Your task to perform on an android device: Search for sushi restaurants on Maps Image 0: 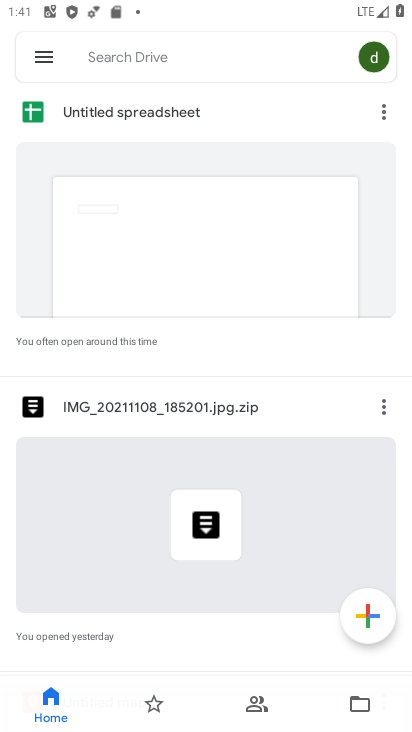
Step 0: press home button
Your task to perform on an android device: Search for sushi restaurants on Maps Image 1: 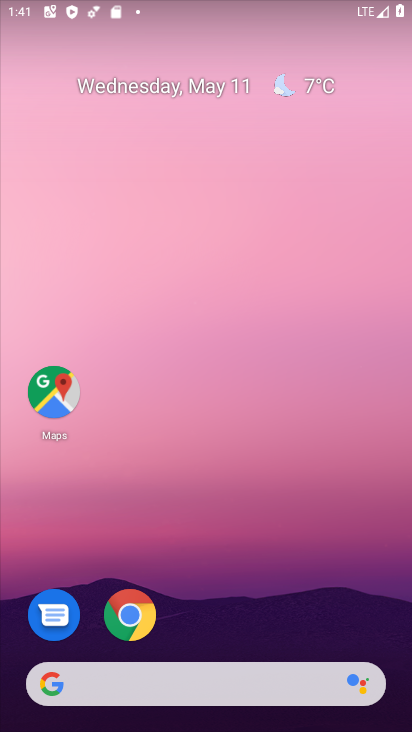
Step 1: click (57, 389)
Your task to perform on an android device: Search for sushi restaurants on Maps Image 2: 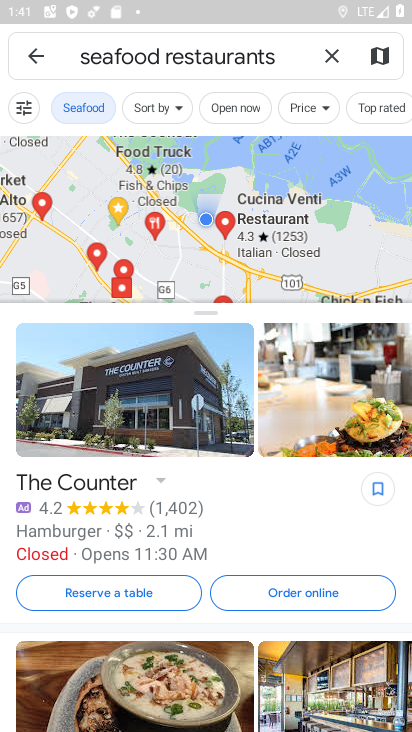
Step 2: click (329, 55)
Your task to perform on an android device: Search for sushi restaurants on Maps Image 3: 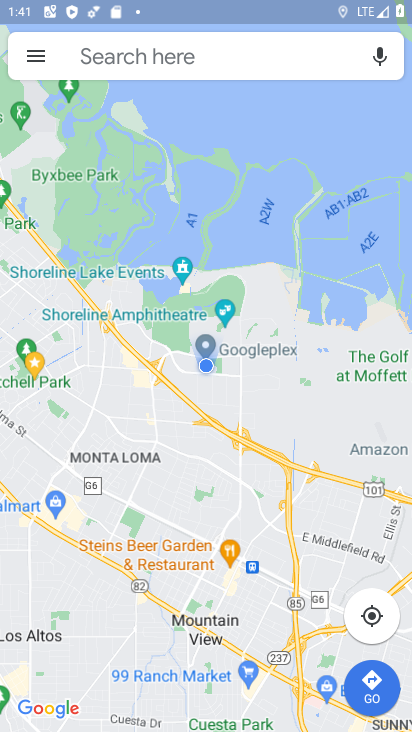
Step 3: type "sushi restaurants"
Your task to perform on an android device: Search for sushi restaurants on Maps Image 4: 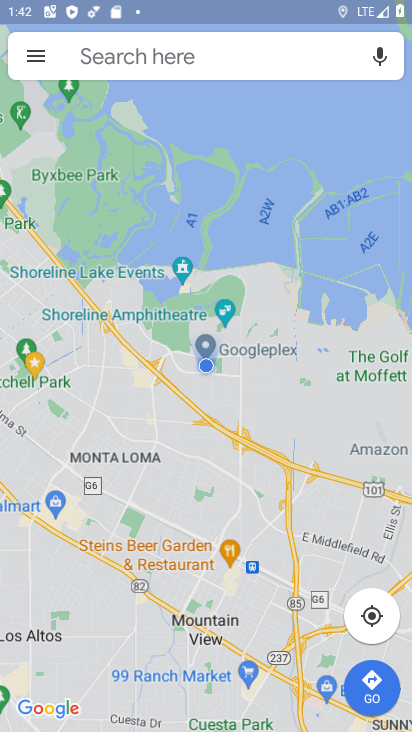
Step 4: click (256, 48)
Your task to perform on an android device: Search for sushi restaurants on Maps Image 5: 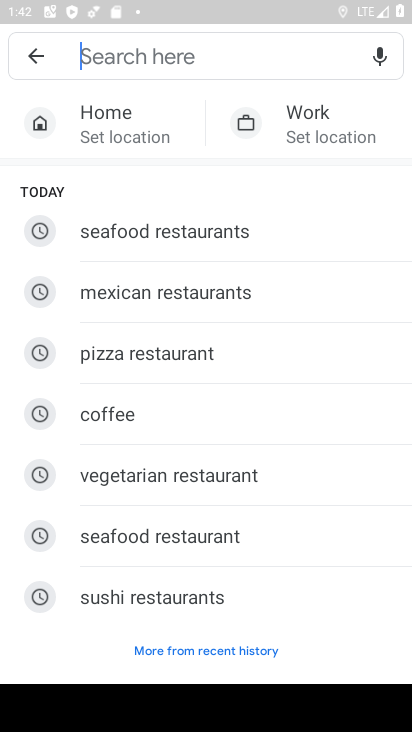
Step 5: type "sushi restaurants"
Your task to perform on an android device: Search for sushi restaurants on Maps Image 6: 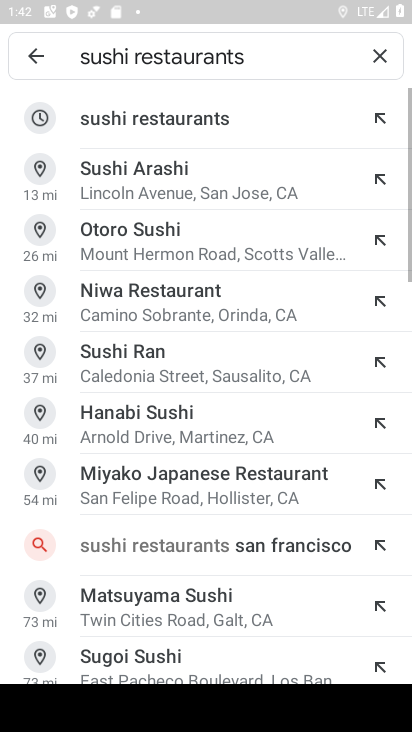
Step 6: click (241, 116)
Your task to perform on an android device: Search for sushi restaurants on Maps Image 7: 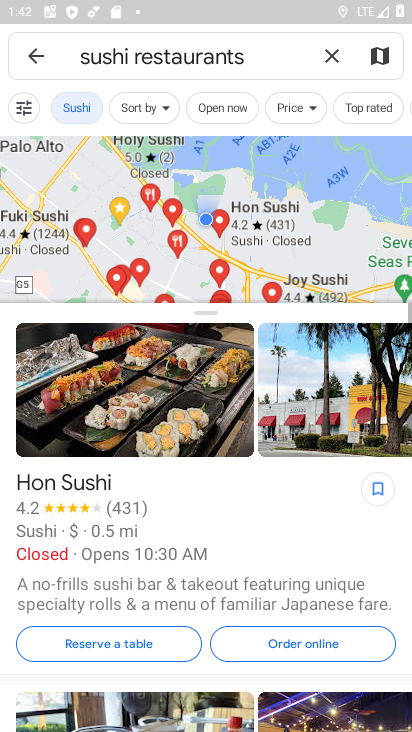
Step 7: task complete